Your task to perform on an android device: open wifi settings Image 0: 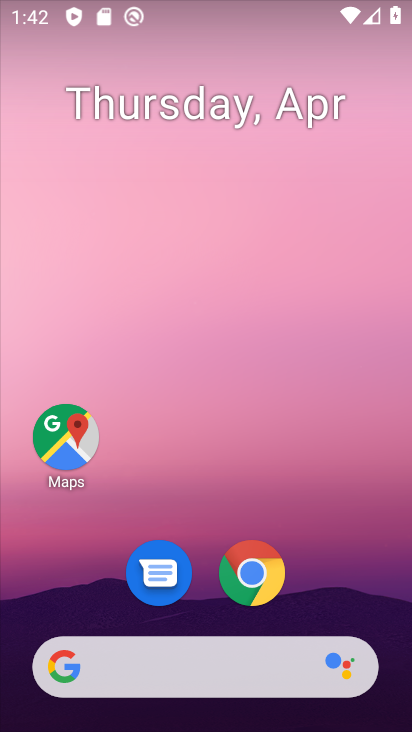
Step 0: drag from (357, 612) to (282, 33)
Your task to perform on an android device: open wifi settings Image 1: 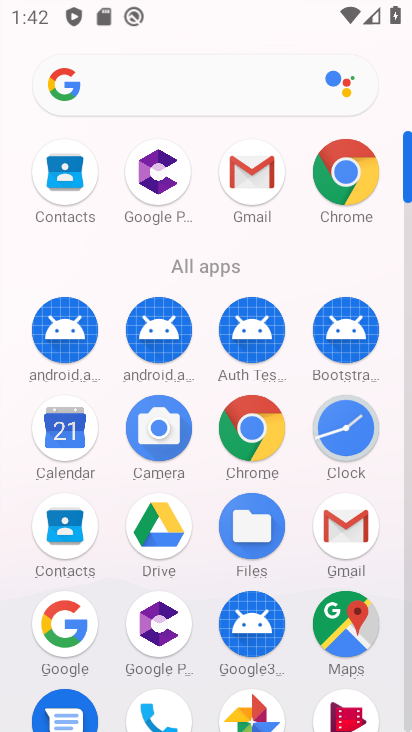
Step 1: click (408, 723)
Your task to perform on an android device: open wifi settings Image 2: 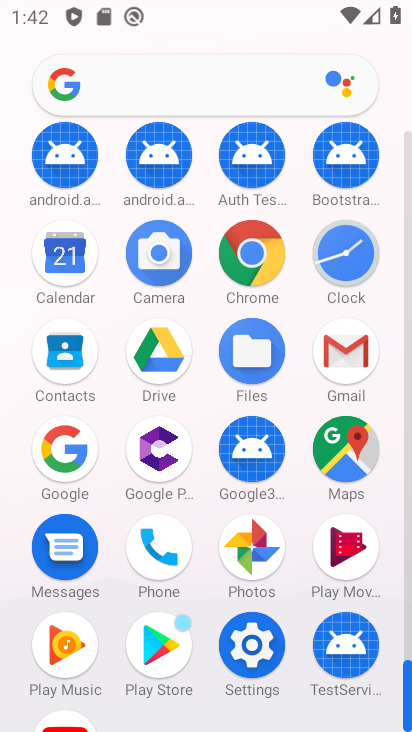
Step 2: click (248, 654)
Your task to perform on an android device: open wifi settings Image 3: 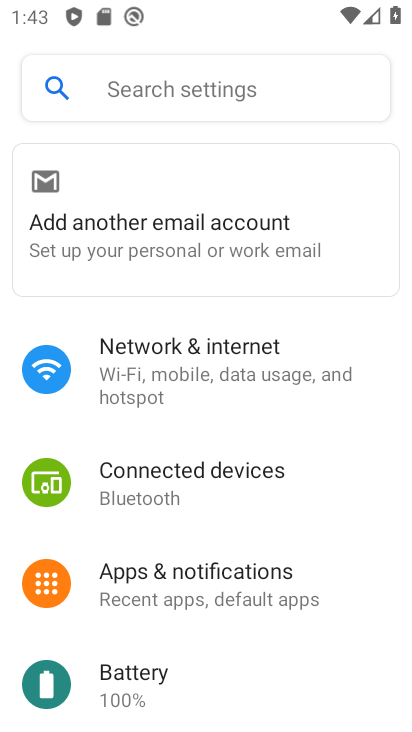
Step 3: click (151, 352)
Your task to perform on an android device: open wifi settings Image 4: 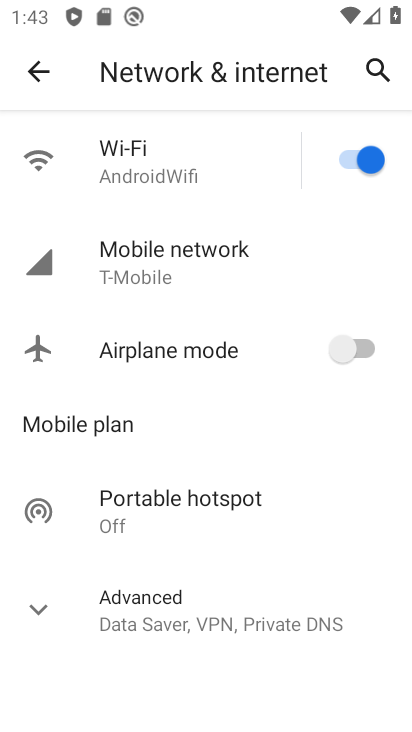
Step 4: click (136, 169)
Your task to perform on an android device: open wifi settings Image 5: 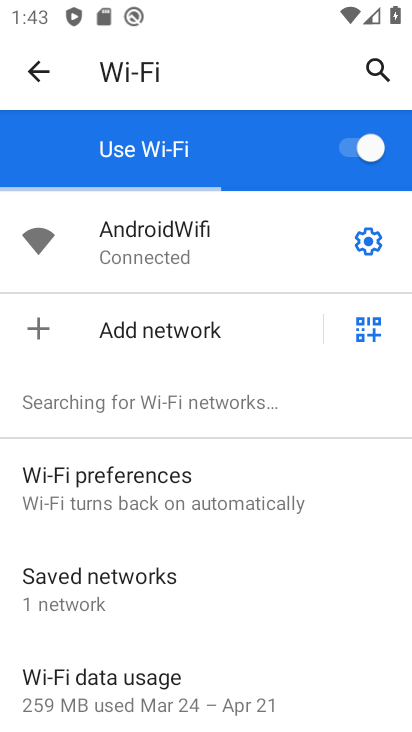
Step 5: task complete